Your task to perform on an android device: turn off notifications settings in the gmail app Image 0: 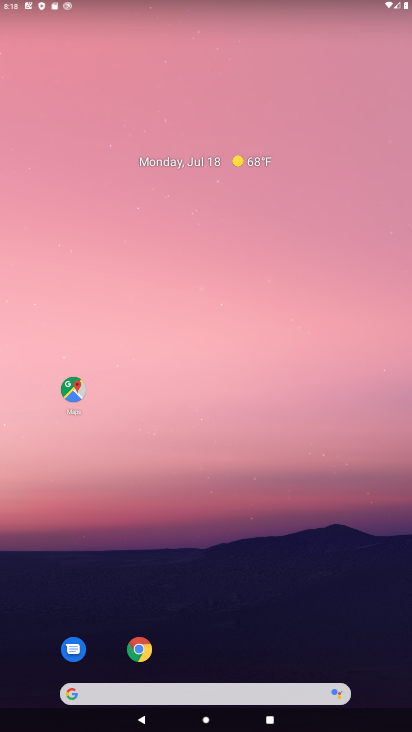
Step 0: drag from (200, 648) to (290, 1)
Your task to perform on an android device: turn off notifications settings in the gmail app Image 1: 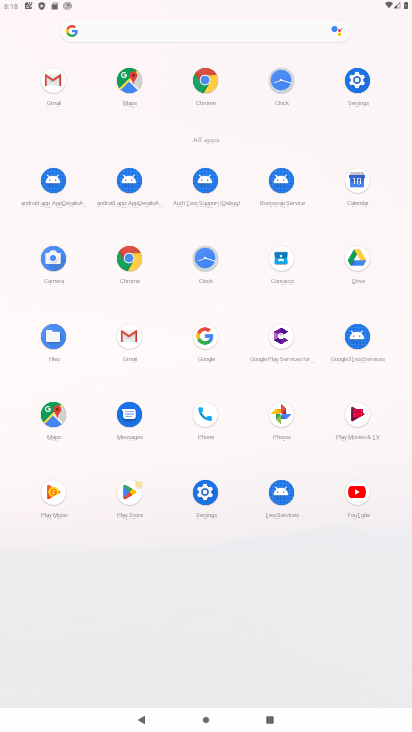
Step 1: click (44, 78)
Your task to perform on an android device: turn off notifications settings in the gmail app Image 2: 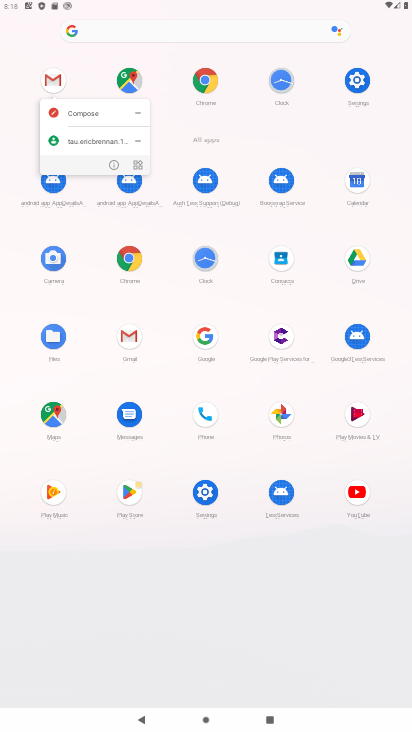
Step 2: click (110, 164)
Your task to perform on an android device: turn off notifications settings in the gmail app Image 3: 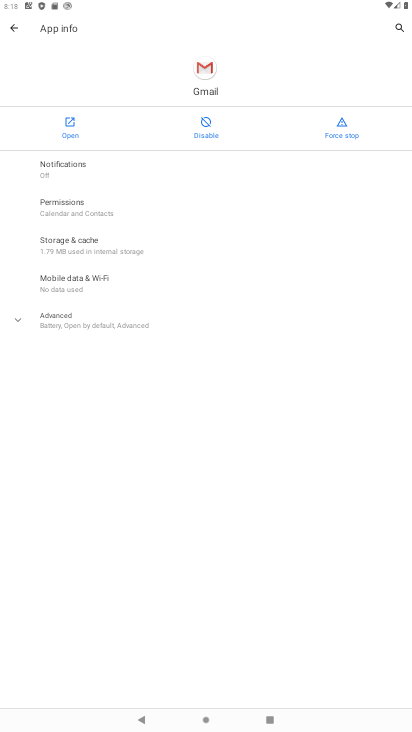
Step 3: click (92, 179)
Your task to perform on an android device: turn off notifications settings in the gmail app Image 4: 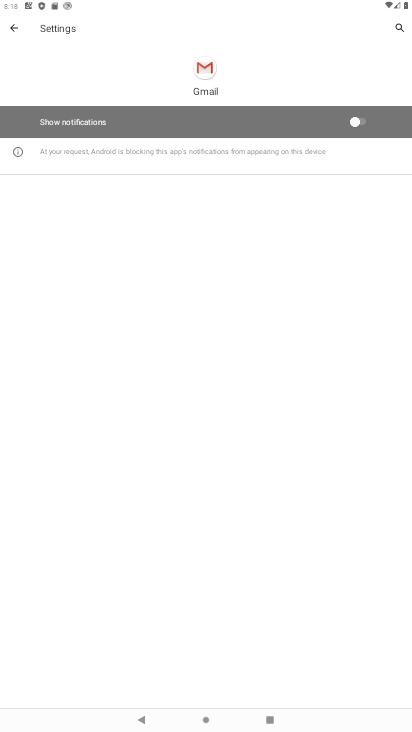
Step 4: task complete